Your task to perform on an android device: change the clock display to digital Image 0: 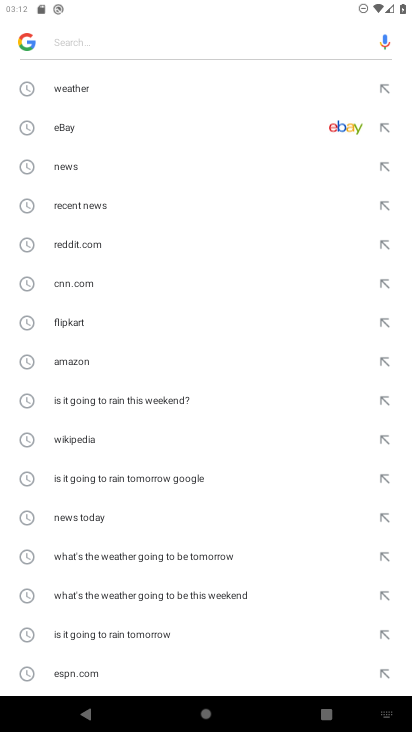
Step 0: press home button
Your task to perform on an android device: change the clock display to digital Image 1: 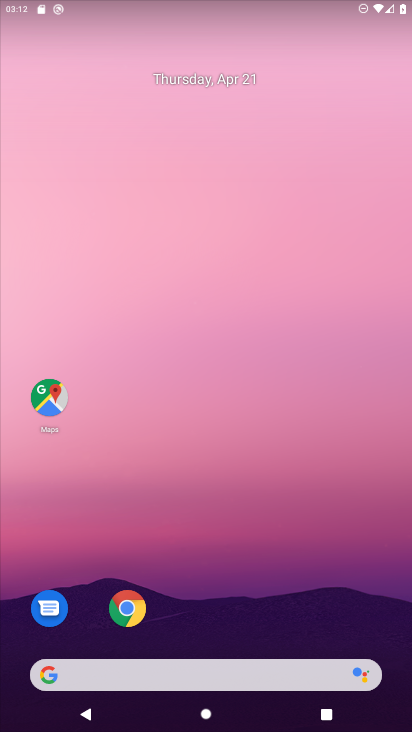
Step 1: drag from (167, 535) to (246, 183)
Your task to perform on an android device: change the clock display to digital Image 2: 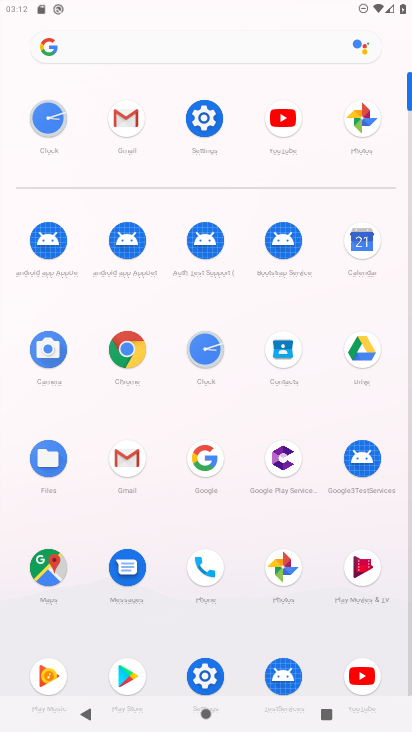
Step 2: click (199, 346)
Your task to perform on an android device: change the clock display to digital Image 3: 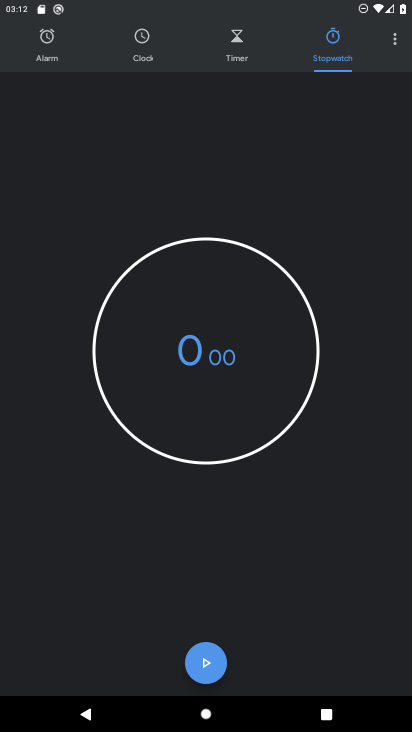
Step 3: click (390, 29)
Your task to perform on an android device: change the clock display to digital Image 4: 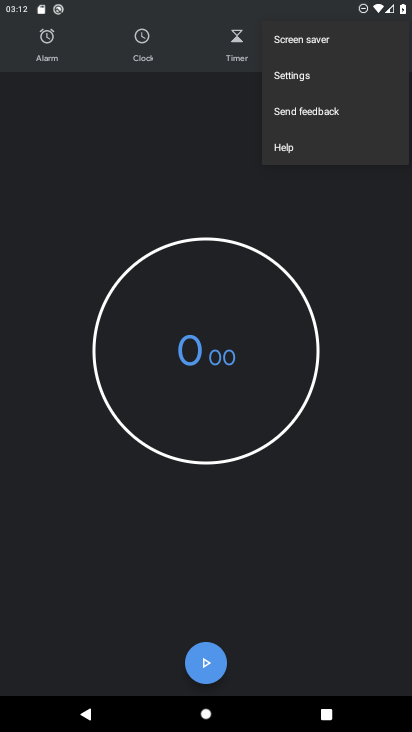
Step 4: click (298, 75)
Your task to perform on an android device: change the clock display to digital Image 5: 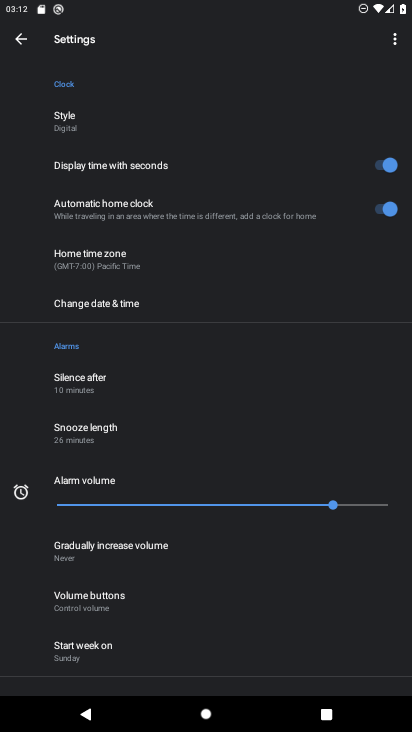
Step 5: click (87, 107)
Your task to perform on an android device: change the clock display to digital Image 6: 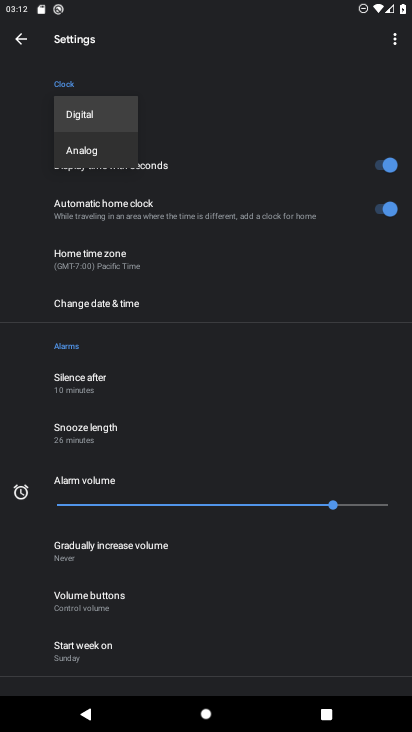
Step 6: click (93, 118)
Your task to perform on an android device: change the clock display to digital Image 7: 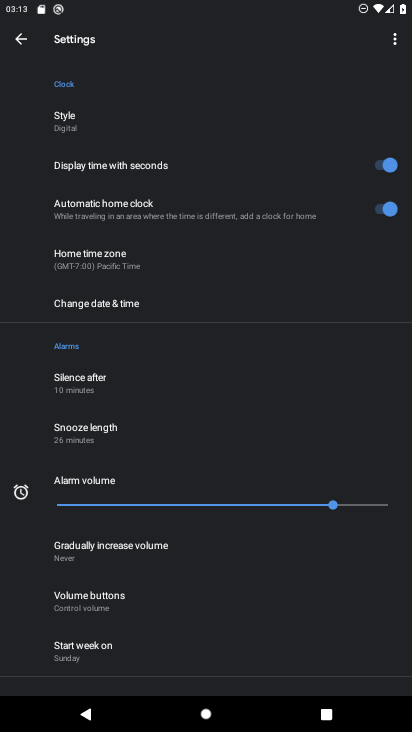
Step 7: task complete